Your task to perform on an android device: Open calendar and show me the third week of next month Image 0: 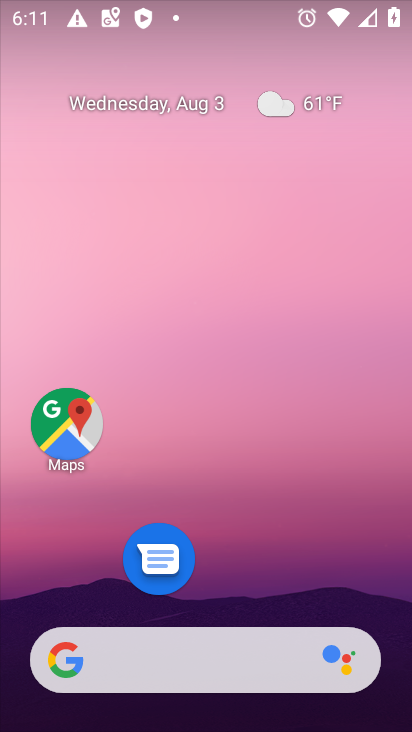
Step 0: drag from (189, 625) to (223, 217)
Your task to perform on an android device: Open calendar and show me the third week of next month Image 1: 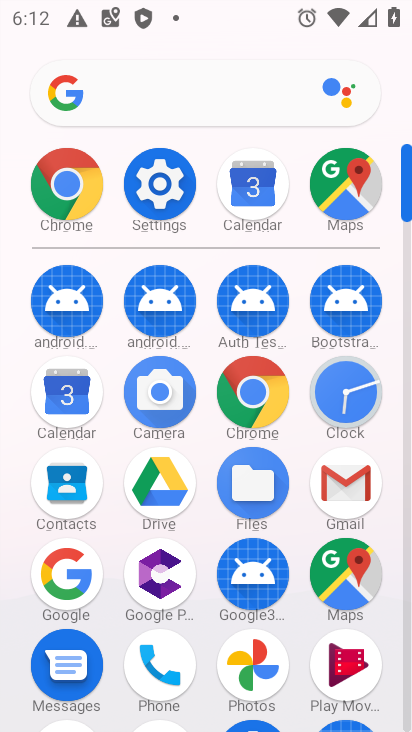
Step 1: click (77, 400)
Your task to perform on an android device: Open calendar and show me the third week of next month Image 2: 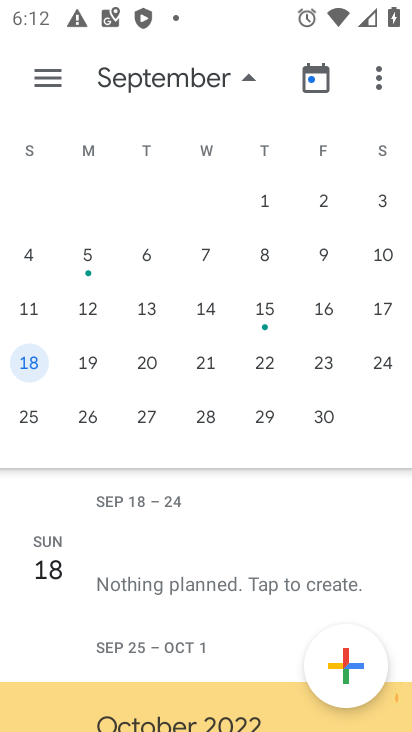
Step 2: click (39, 306)
Your task to perform on an android device: Open calendar and show me the third week of next month Image 3: 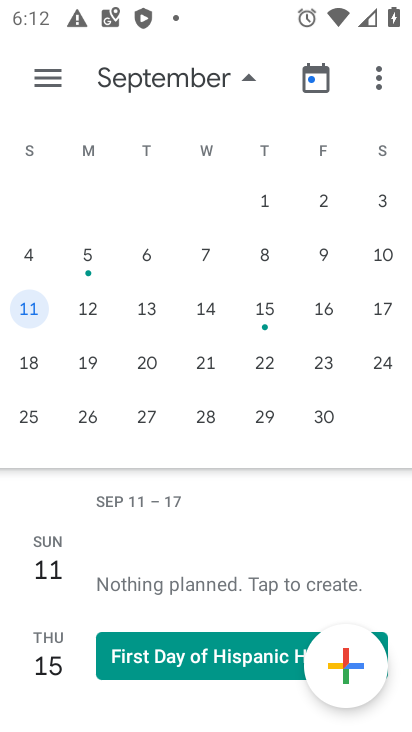
Step 3: task complete